Your task to perform on an android device: toggle data saver in the chrome app Image 0: 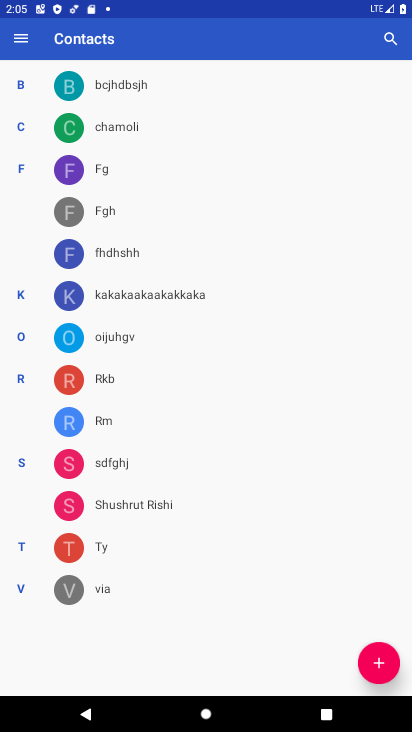
Step 0: press home button
Your task to perform on an android device: toggle data saver in the chrome app Image 1: 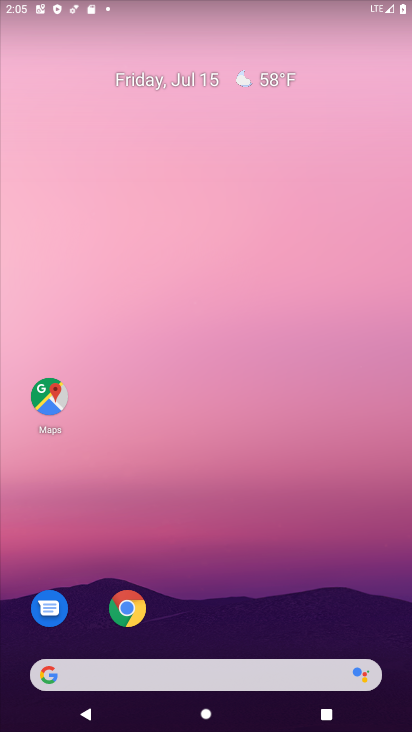
Step 1: drag from (294, 599) to (251, 22)
Your task to perform on an android device: toggle data saver in the chrome app Image 2: 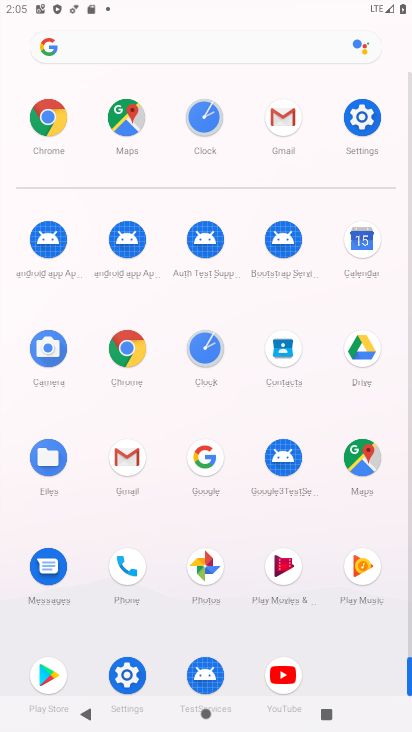
Step 2: click (136, 346)
Your task to perform on an android device: toggle data saver in the chrome app Image 3: 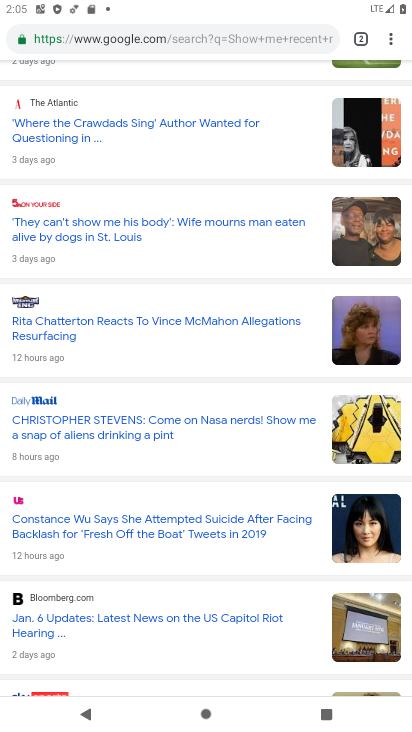
Step 3: drag from (393, 40) to (256, 431)
Your task to perform on an android device: toggle data saver in the chrome app Image 4: 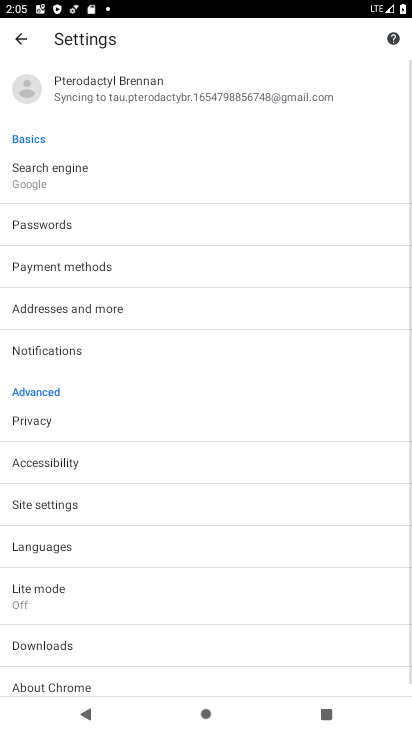
Step 4: drag from (136, 616) to (138, 269)
Your task to perform on an android device: toggle data saver in the chrome app Image 5: 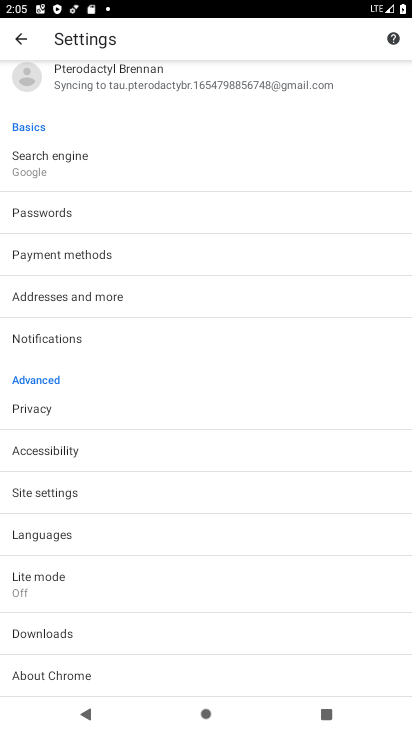
Step 5: click (37, 581)
Your task to perform on an android device: toggle data saver in the chrome app Image 6: 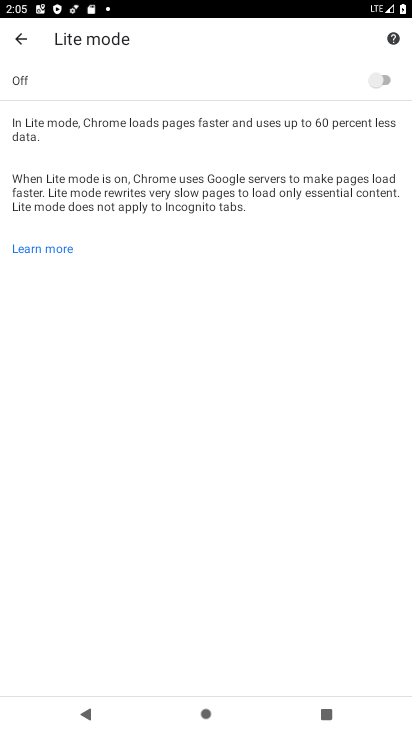
Step 6: click (262, 78)
Your task to perform on an android device: toggle data saver in the chrome app Image 7: 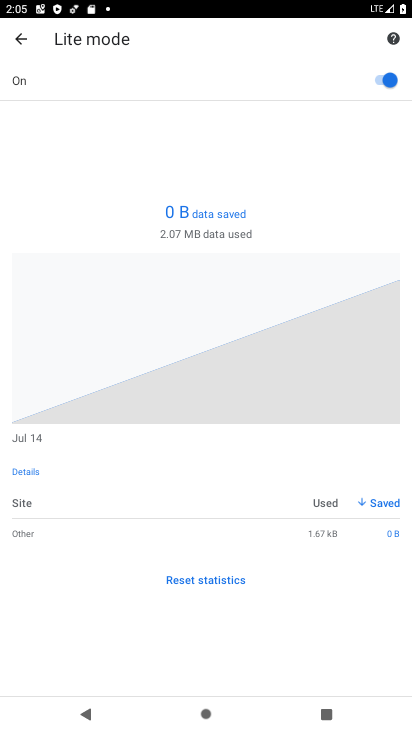
Step 7: task complete